Your task to perform on an android device: turn notification dots on Image 0: 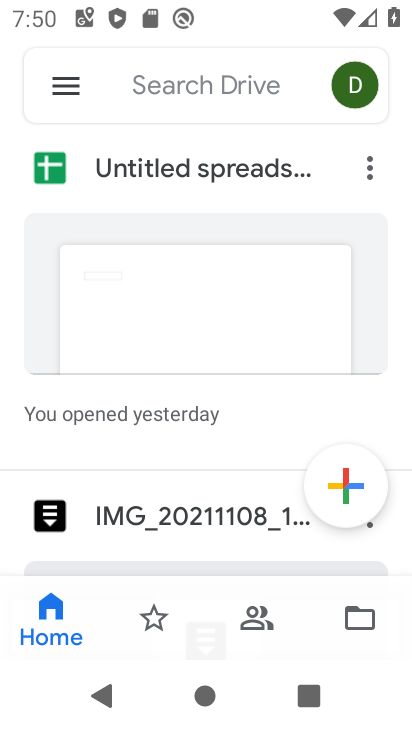
Step 0: press home button
Your task to perform on an android device: turn notification dots on Image 1: 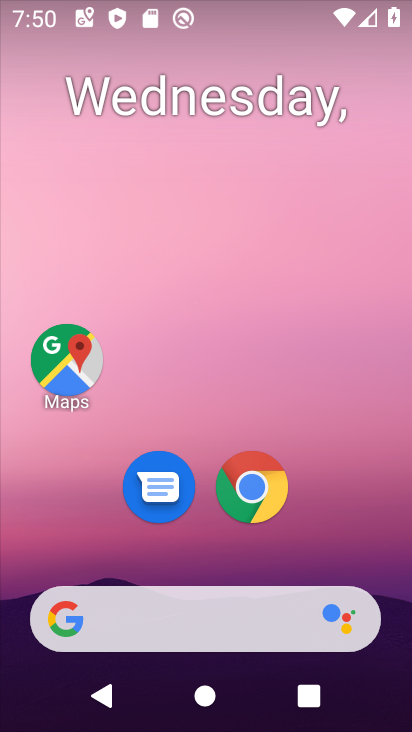
Step 1: drag from (408, 546) to (393, 173)
Your task to perform on an android device: turn notification dots on Image 2: 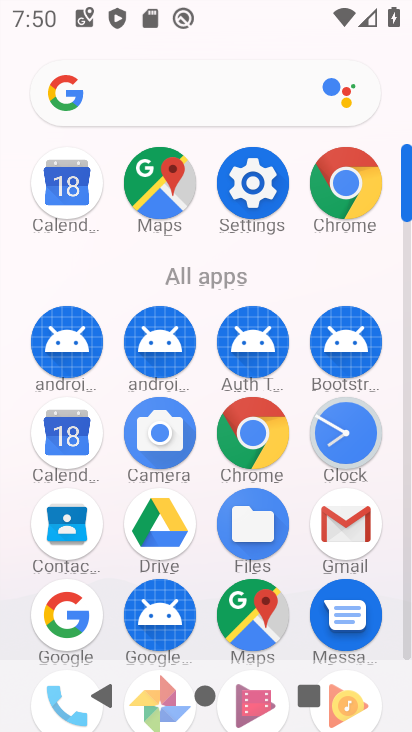
Step 2: click (272, 197)
Your task to perform on an android device: turn notification dots on Image 3: 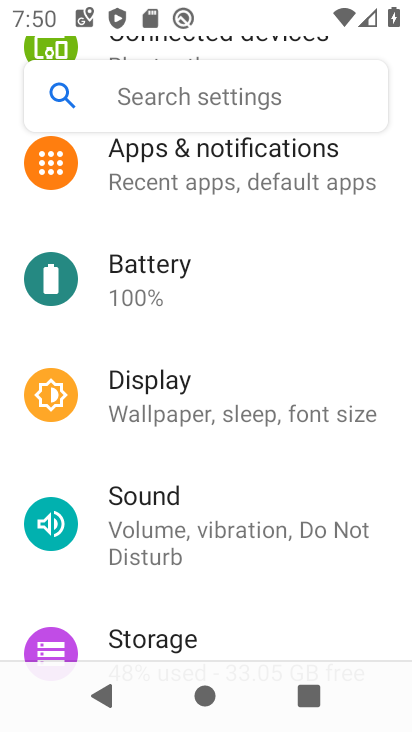
Step 3: drag from (322, 257) to (319, 367)
Your task to perform on an android device: turn notification dots on Image 4: 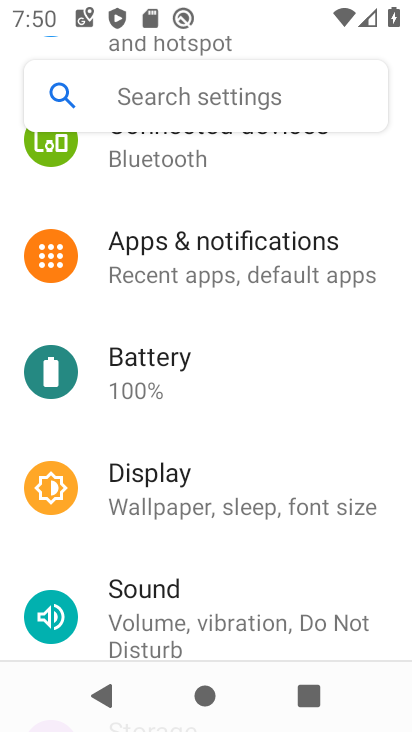
Step 4: drag from (337, 199) to (332, 333)
Your task to perform on an android device: turn notification dots on Image 5: 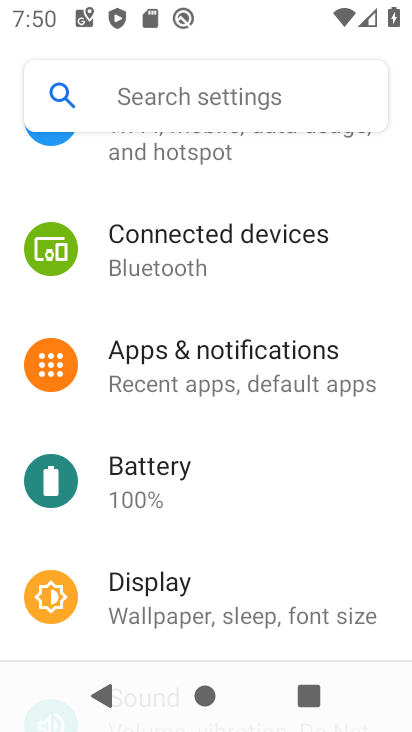
Step 5: drag from (324, 195) to (341, 324)
Your task to perform on an android device: turn notification dots on Image 6: 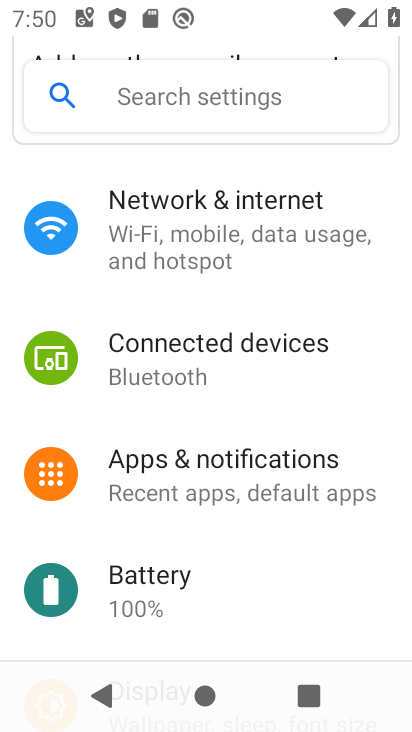
Step 6: drag from (364, 434) to (359, 326)
Your task to perform on an android device: turn notification dots on Image 7: 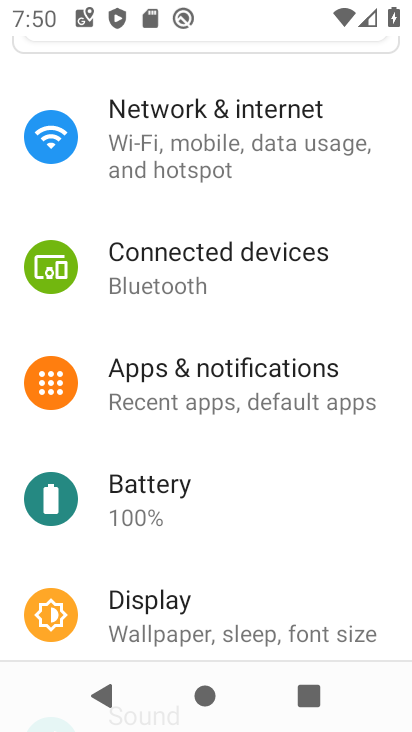
Step 7: drag from (333, 491) to (341, 425)
Your task to perform on an android device: turn notification dots on Image 8: 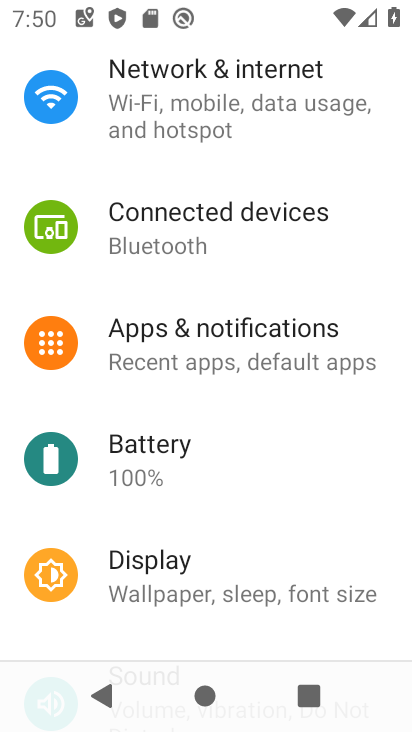
Step 8: click (310, 361)
Your task to perform on an android device: turn notification dots on Image 9: 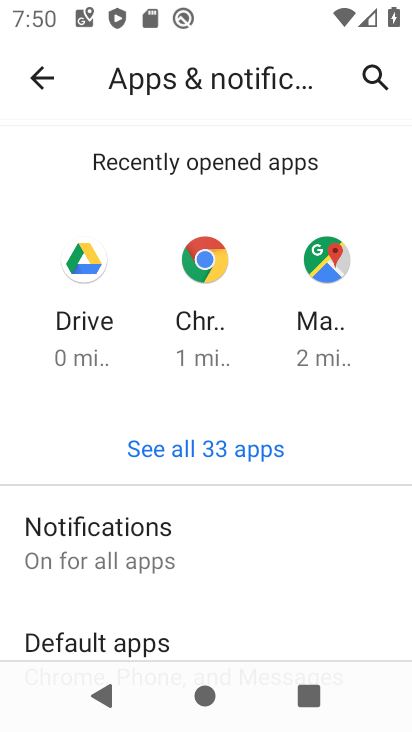
Step 9: drag from (286, 558) to (287, 453)
Your task to perform on an android device: turn notification dots on Image 10: 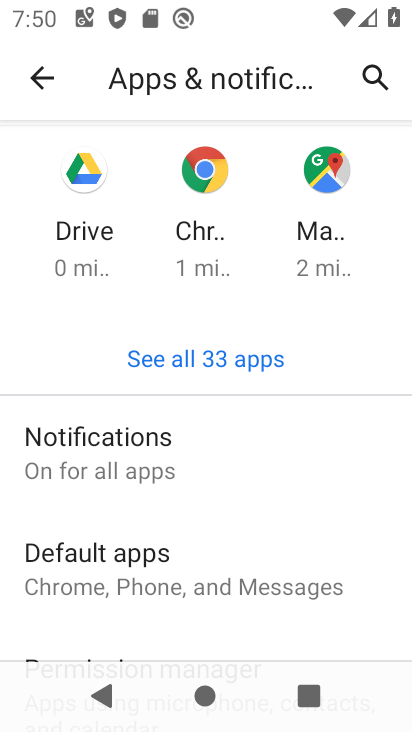
Step 10: drag from (280, 529) to (296, 437)
Your task to perform on an android device: turn notification dots on Image 11: 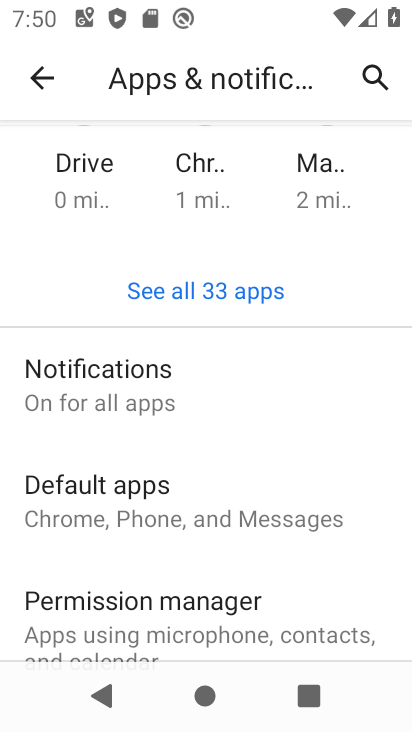
Step 11: drag from (309, 576) to (309, 460)
Your task to perform on an android device: turn notification dots on Image 12: 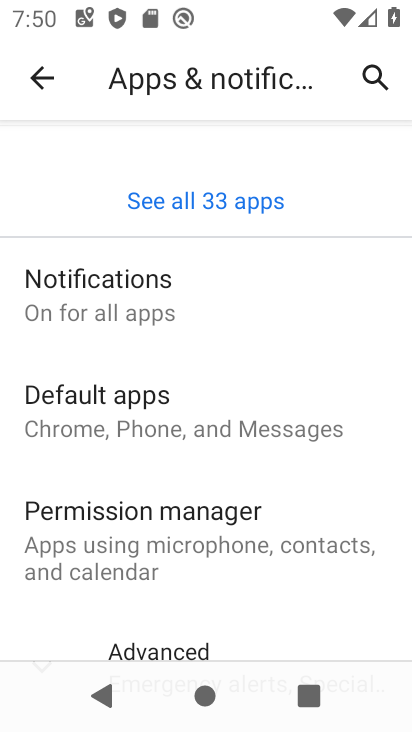
Step 12: click (151, 328)
Your task to perform on an android device: turn notification dots on Image 13: 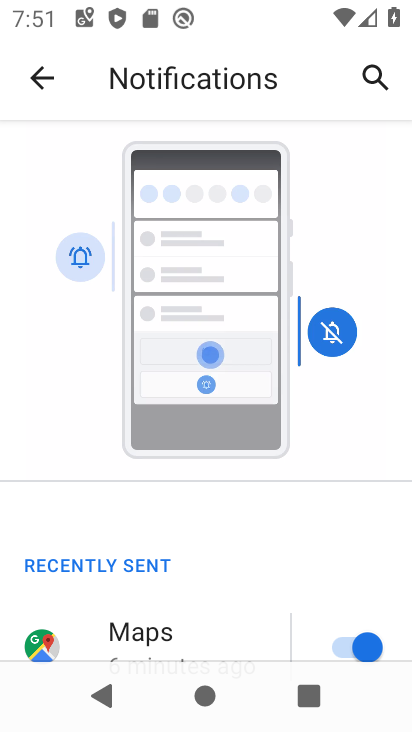
Step 13: drag from (209, 559) to (210, 457)
Your task to perform on an android device: turn notification dots on Image 14: 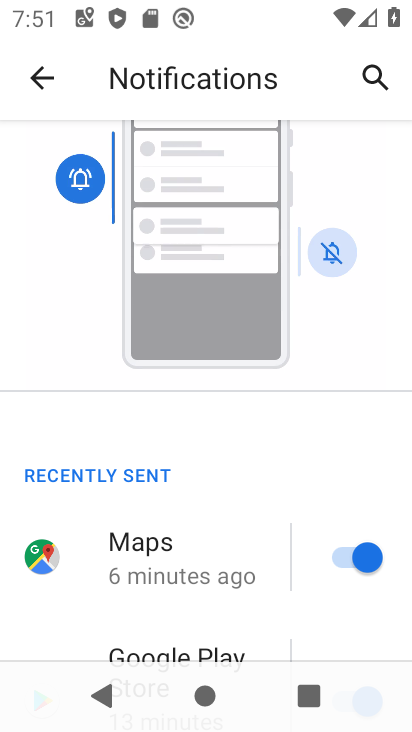
Step 14: drag from (229, 606) to (248, 489)
Your task to perform on an android device: turn notification dots on Image 15: 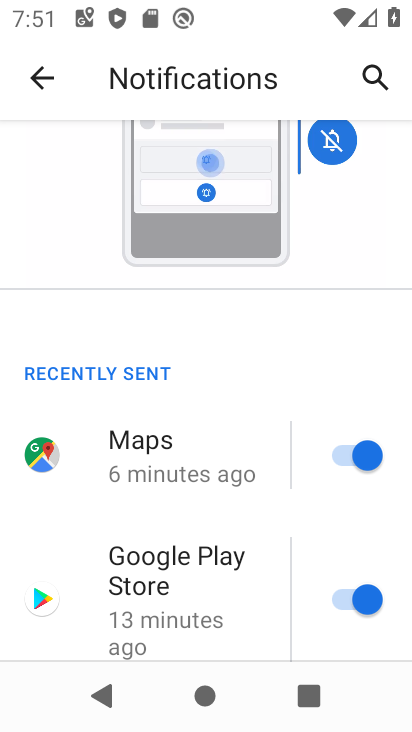
Step 15: drag from (264, 598) to (276, 380)
Your task to perform on an android device: turn notification dots on Image 16: 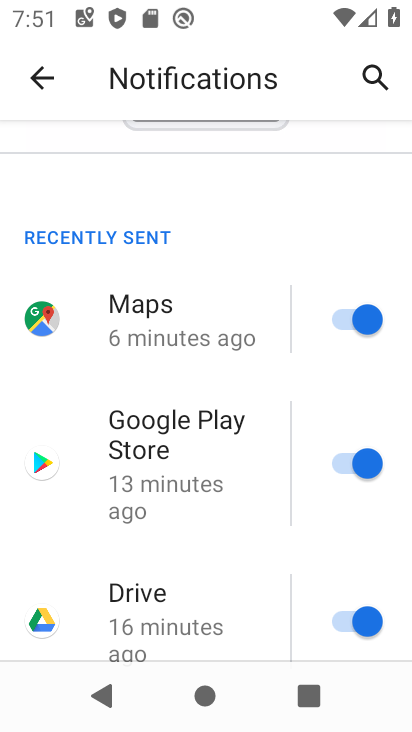
Step 16: drag from (258, 556) to (252, 405)
Your task to perform on an android device: turn notification dots on Image 17: 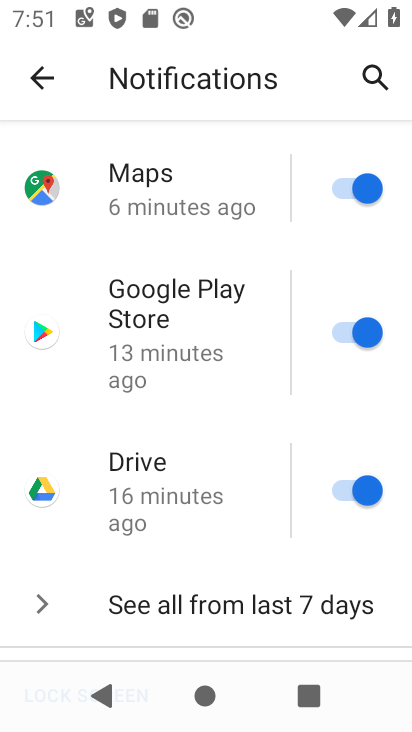
Step 17: drag from (265, 546) to (264, 445)
Your task to perform on an android device: turn notification dots on Image 18: 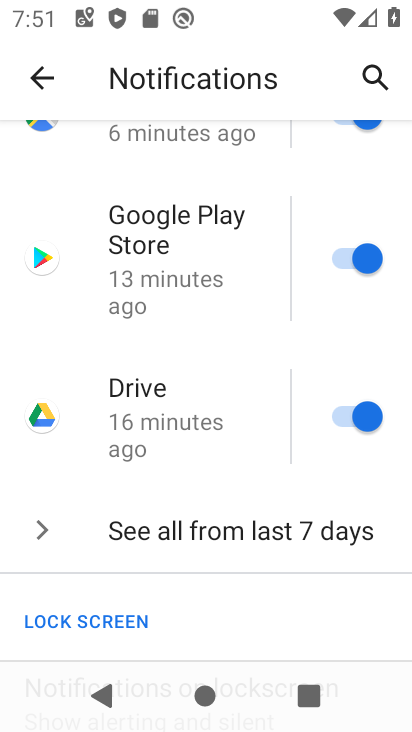
Step 18: drag from (264, 628) to (268, 451)
Your task to perform on an android device: turn notification dots on Image 19: 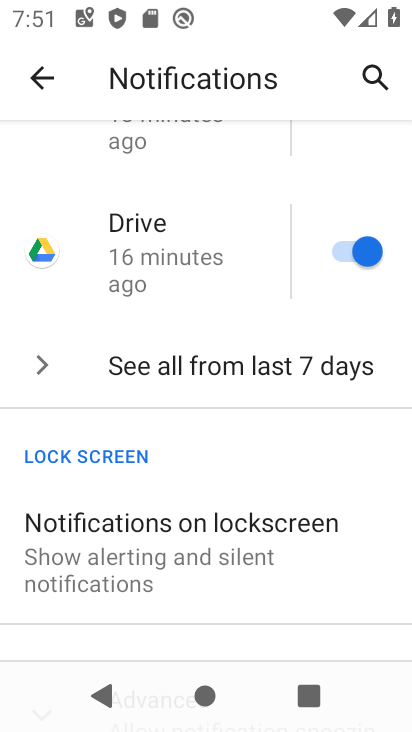
Step 19: drag from (259, 600) to (255, 420)
Your task to perform on an android device: turn notification dots on Image 20: 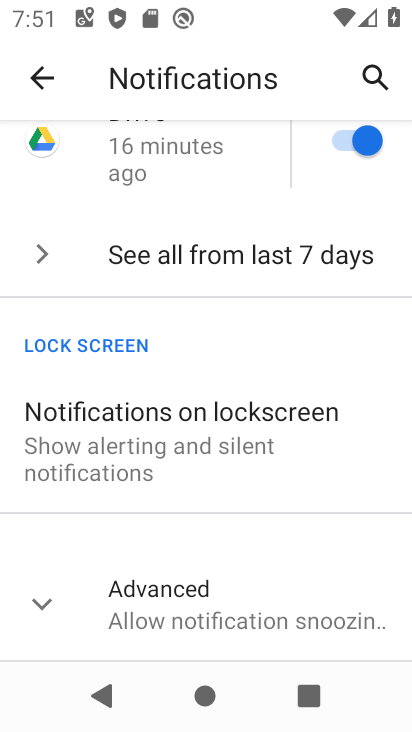
Step 20: click (265, 614)
Your task to perform on an android device: turn notification dots on Image 21: 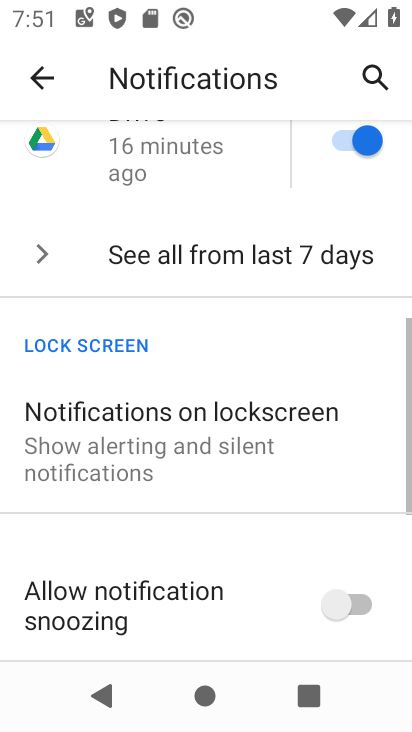
Step 21: drag from (265, 614) to (277, 481)
Your task to perform on an android device: turn notification dots on Image 22: 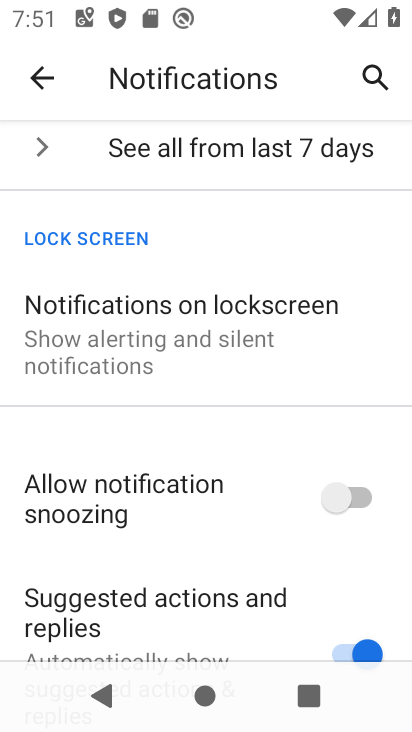
Step 22: drag from (266, 626) to (275, 458)
Your task to perform on an android device: turn notification dots on Image 23: 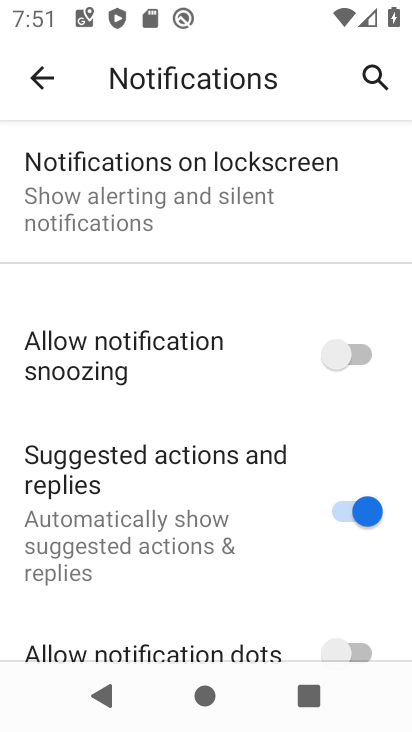
Step 23: drag from (280, 604) to (275, 479)
Your task to perform on an android device: turn notification dots on Image 24: 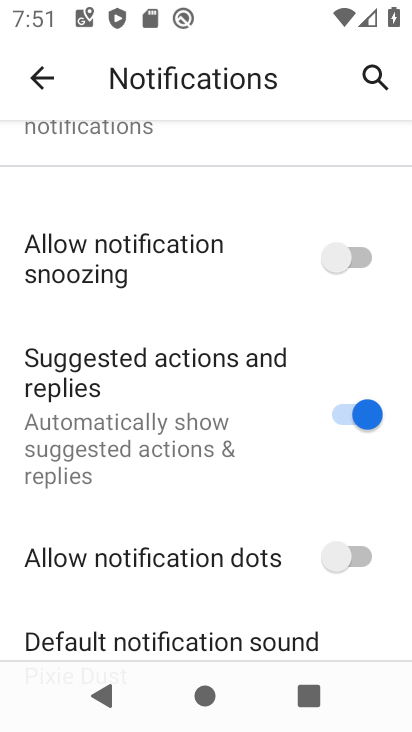
Step 24: click (340, 573)
Your task to perform on an android device: turn notification dots on Image 25: 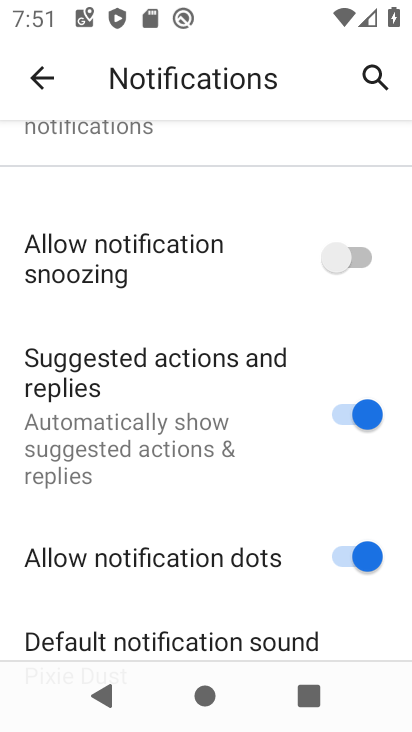
Step 25: task complete